Your task to perform on an android device: Search for seafood restaurants on Google Maps Image 0: 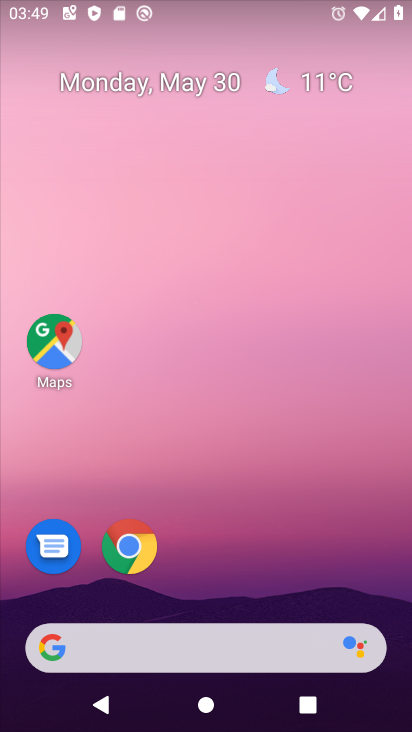
Step 0: press home button
Your task to perform on an android device: Search for seafood restaurants on Google Maps Image 1: 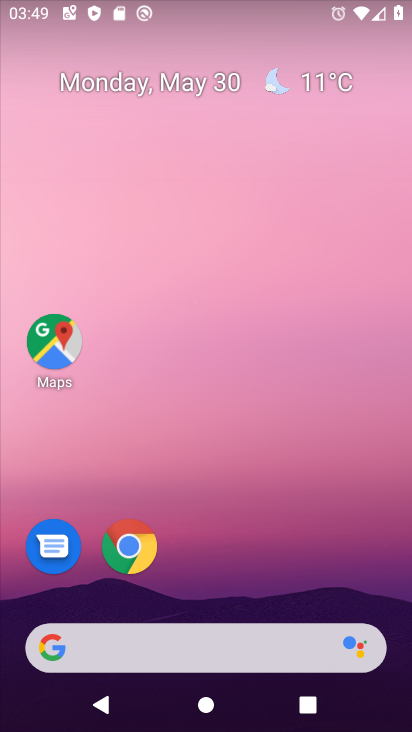
Step 1: click (51, 338)
Your task to perform on an android device: Search for seafood restaurants on Google Maps Image 2: 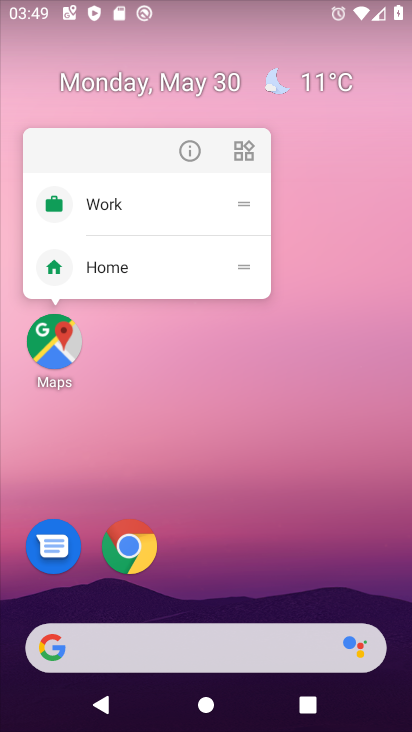
Step 2: click (49, 339)
Your task to perform on an android device: Search for seafood restaurants on Google Maps Image 3: 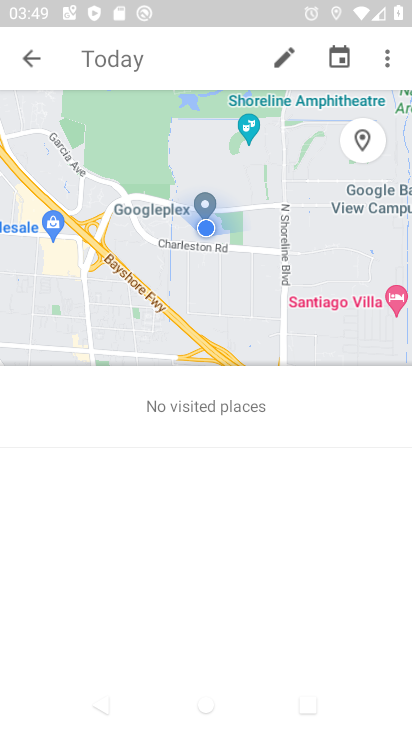
Step 3: click (43, 57)
Your task to perform on an android device: Search for seafood restaurants on Google Maps Image 4: 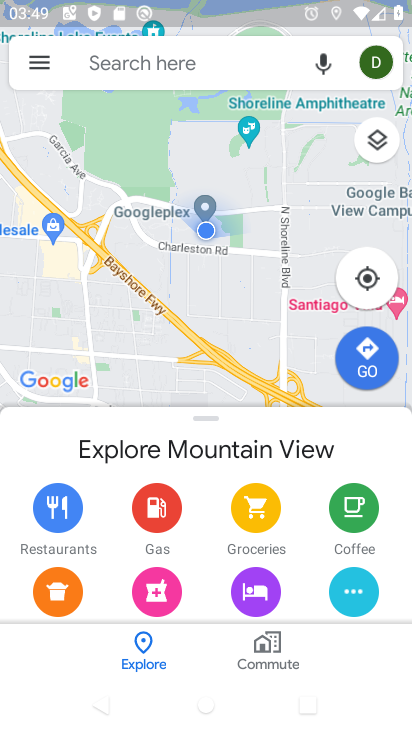
Step 4: click (130, 56)
Your task to perform on an android device: Search for seafood restaurants on Google Maps Image 5: 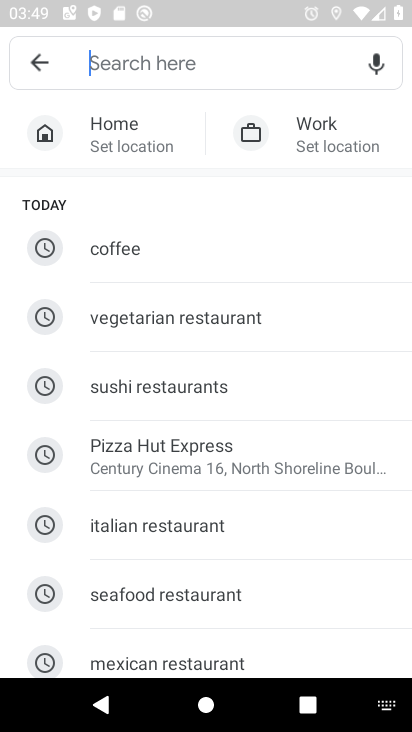
Step 5: type "seafood"
Your task to perform on an android device: Search for seafood restaurants on Google Maps Image 6: 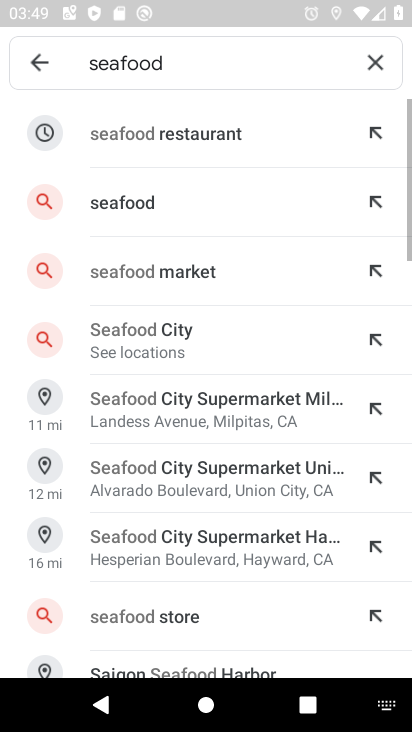
Step 6: click (167, 124)
Your task to perform on an android device: Search for seafood restaurants on Google Maps Image 7: 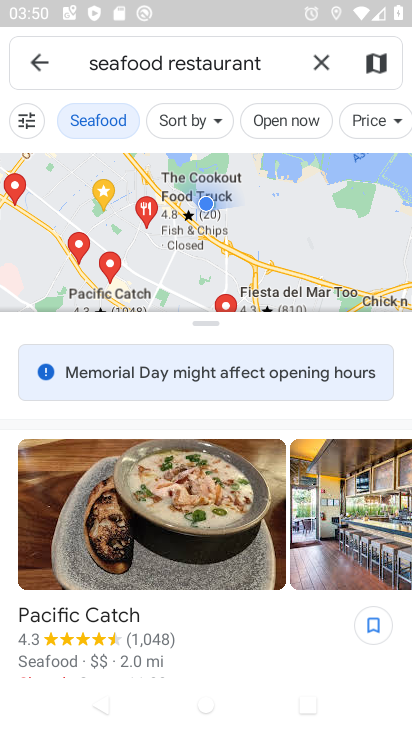
Step 7: task complete